Your task to perform on an android device: open app "VLC for Android" (install if not already installed) Image 0: 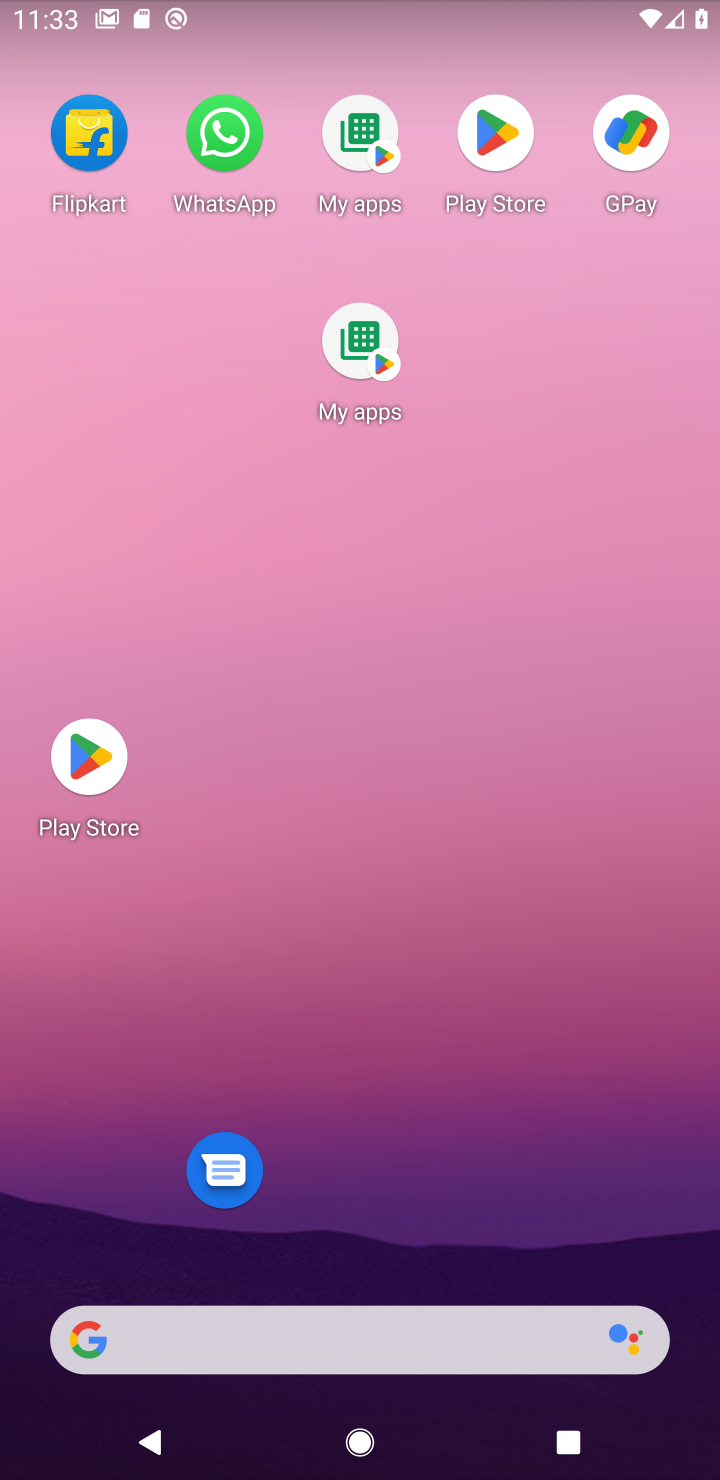
Step 0: drag from (507, 1191) to (426, 50)
Your task to perform on an android device: open app "VLC for Android" (install if not already installed) Image 1: 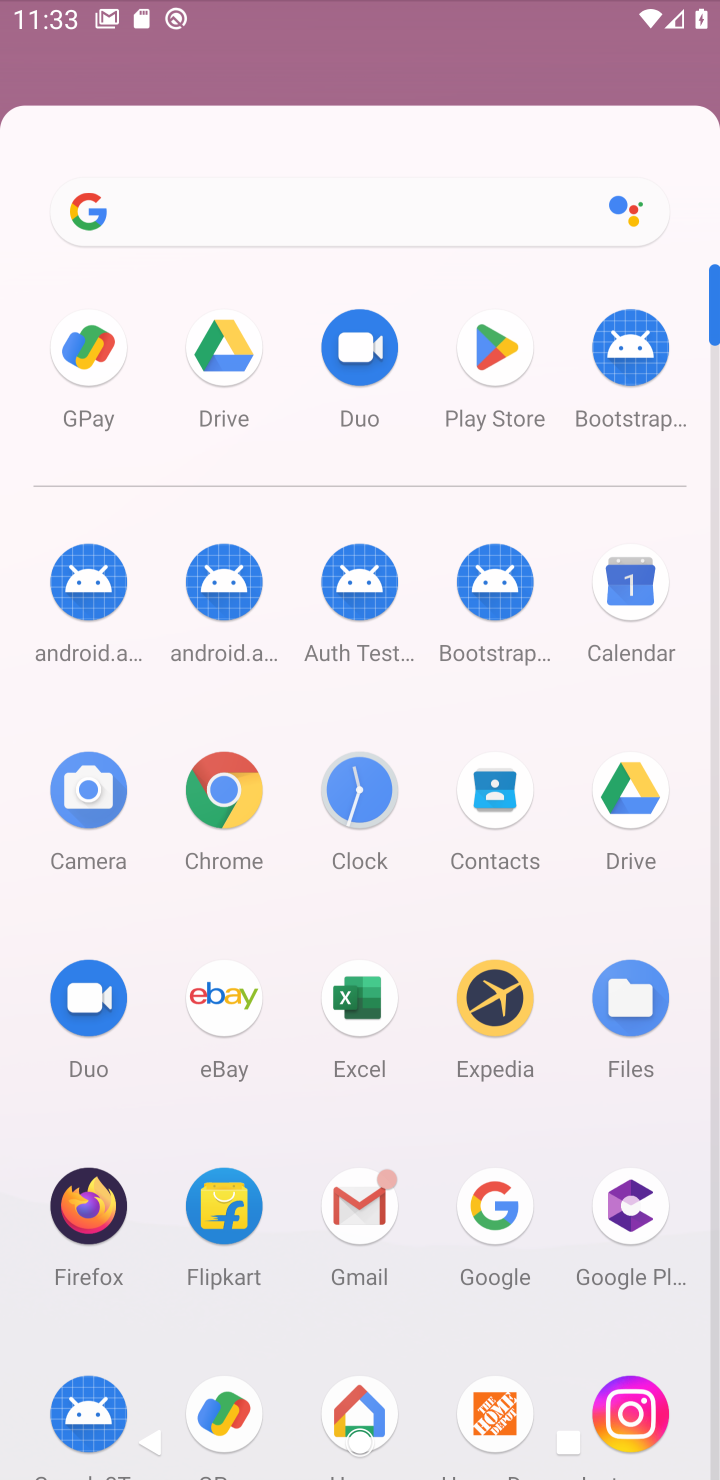
Step 1: drag from (534, 301) to (525, 0)
Your task to perform on an android device: open app "VLC for Android" (install if not already installed) Image 2: 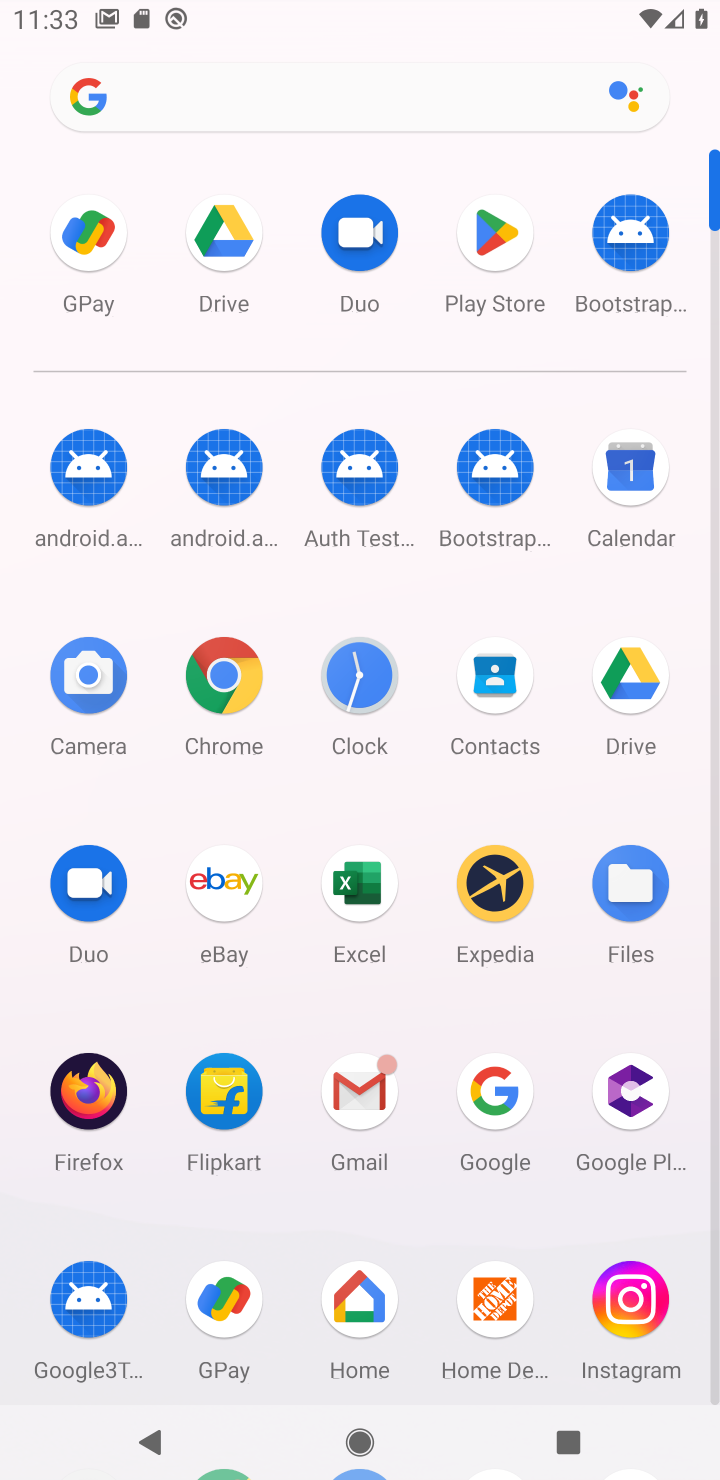
Step 2: click (499, 251)
Your task to perform on an android device: open app "VLC for Android" (install if not already installed) Image 3: 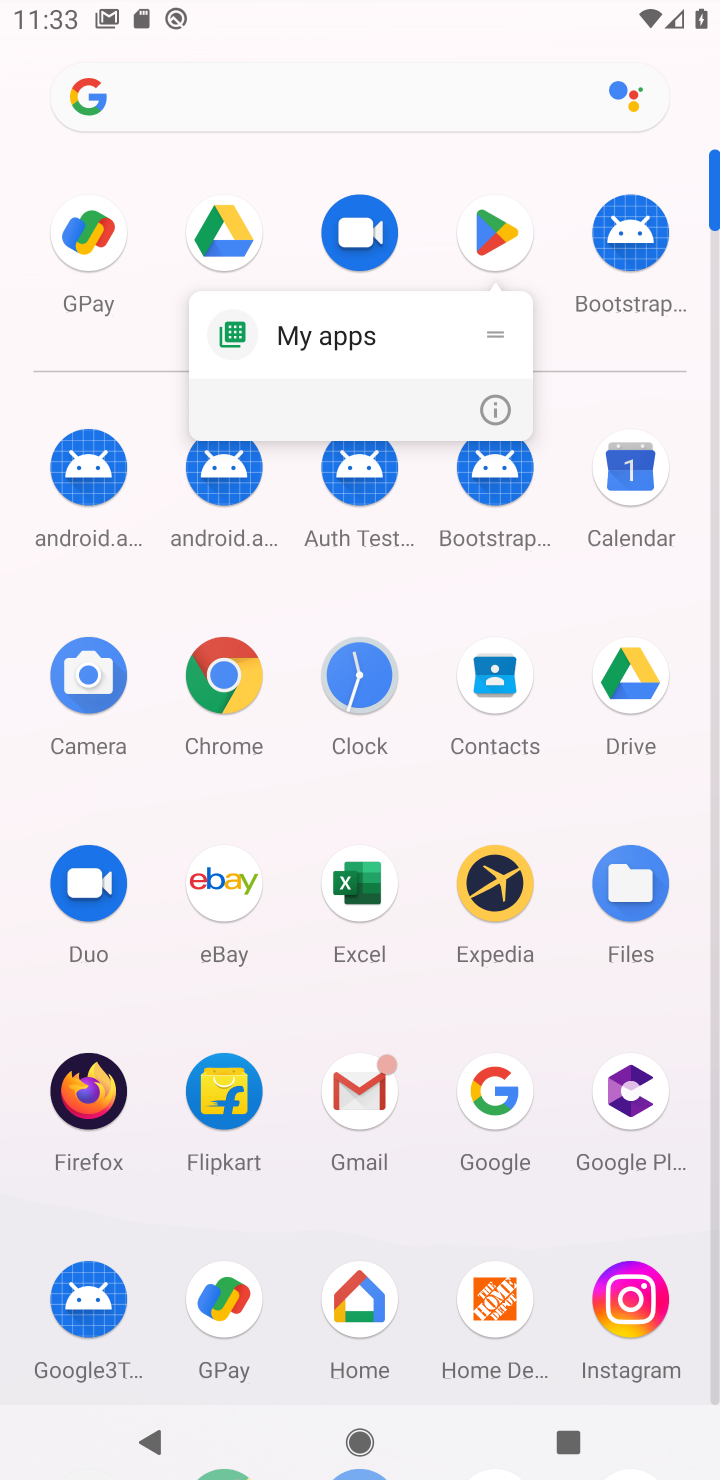
Step 3: click (399, 312)
Your task to perform on an android device: open app "VLC for Android" (install if not already installed) Image 4: 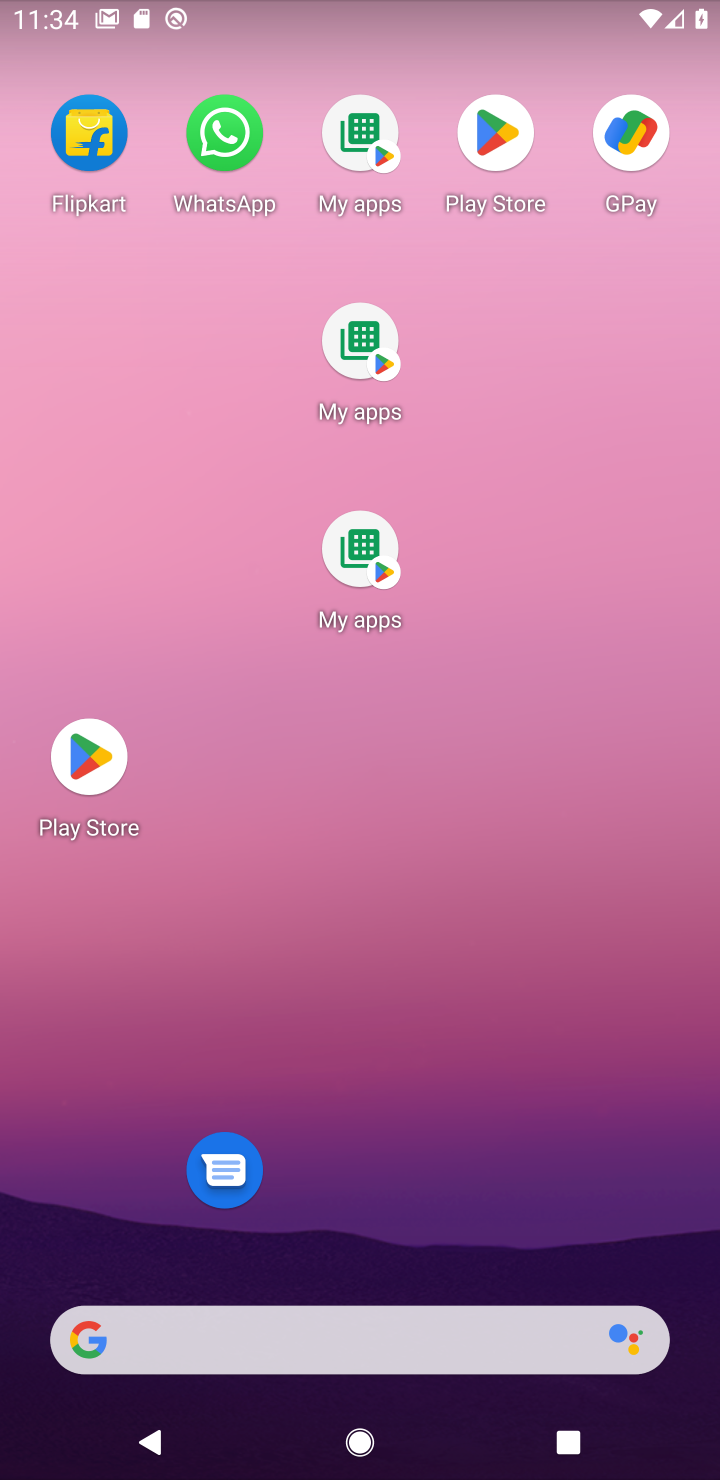
Step 4: click (512, 142)
Your task to perform on an android device: open app "VLC for Android" (install if not already installed) Image 5: 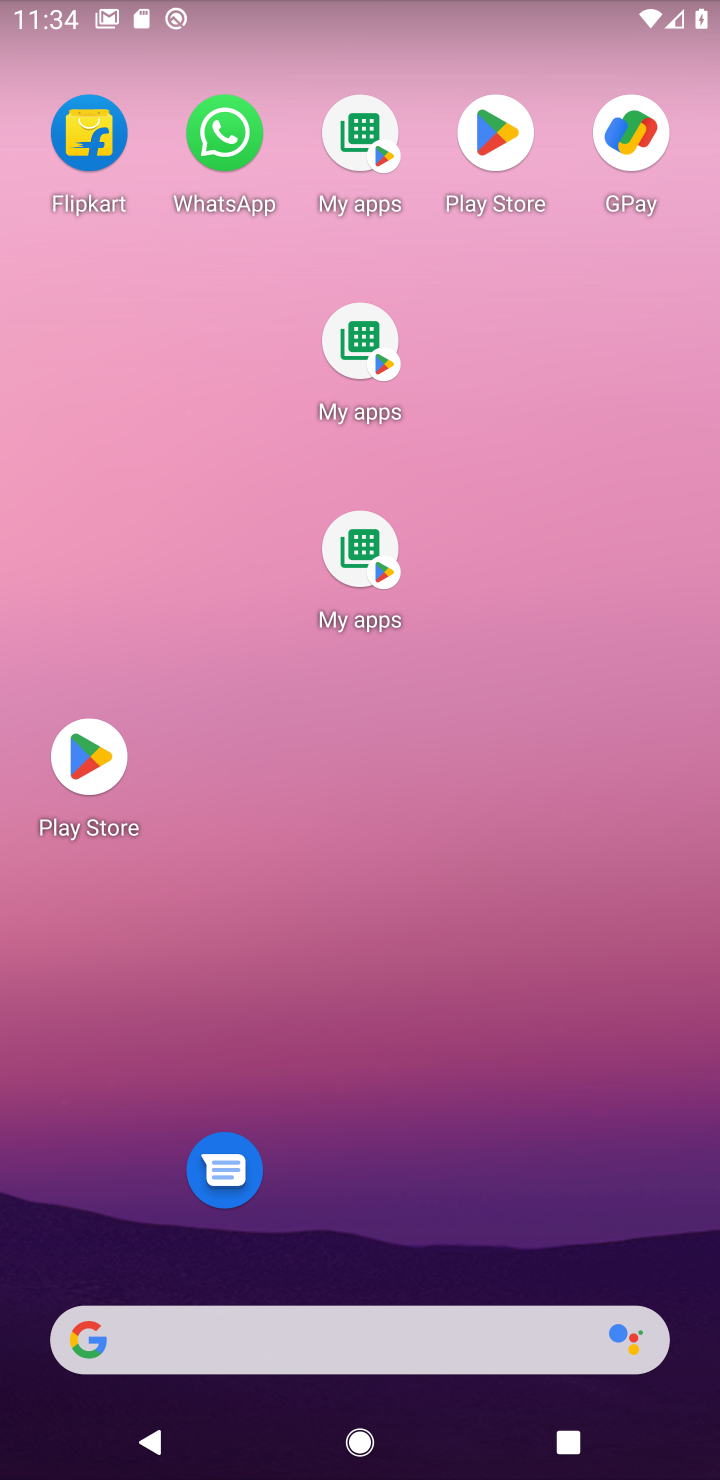
Step 5: click (497, 134)
Your task to perform on an android device: open app "VLC for Android" (install if not already installed) Image 6: 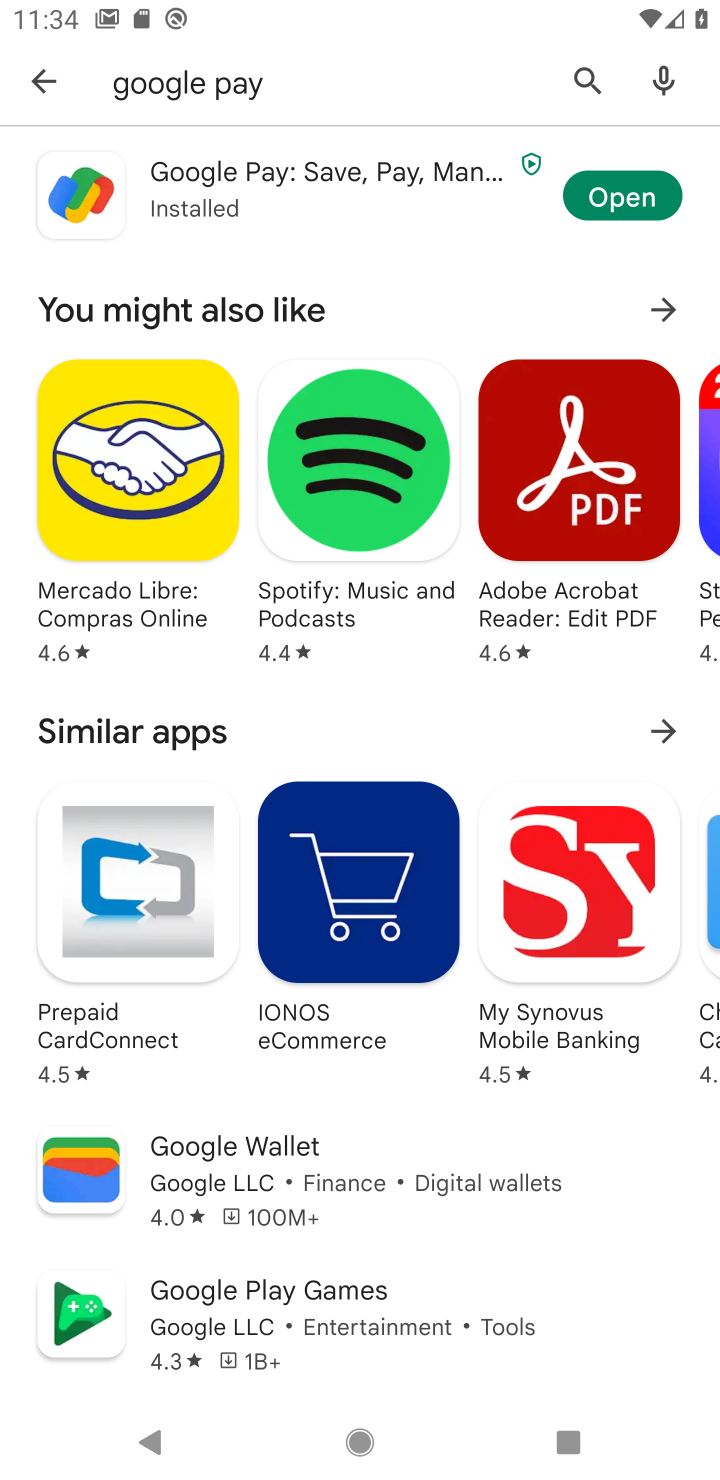
Step 6: click (582, 73)
Your task to perform on an android device: open app "VLC for Android" (install if not already installed) Image 7: 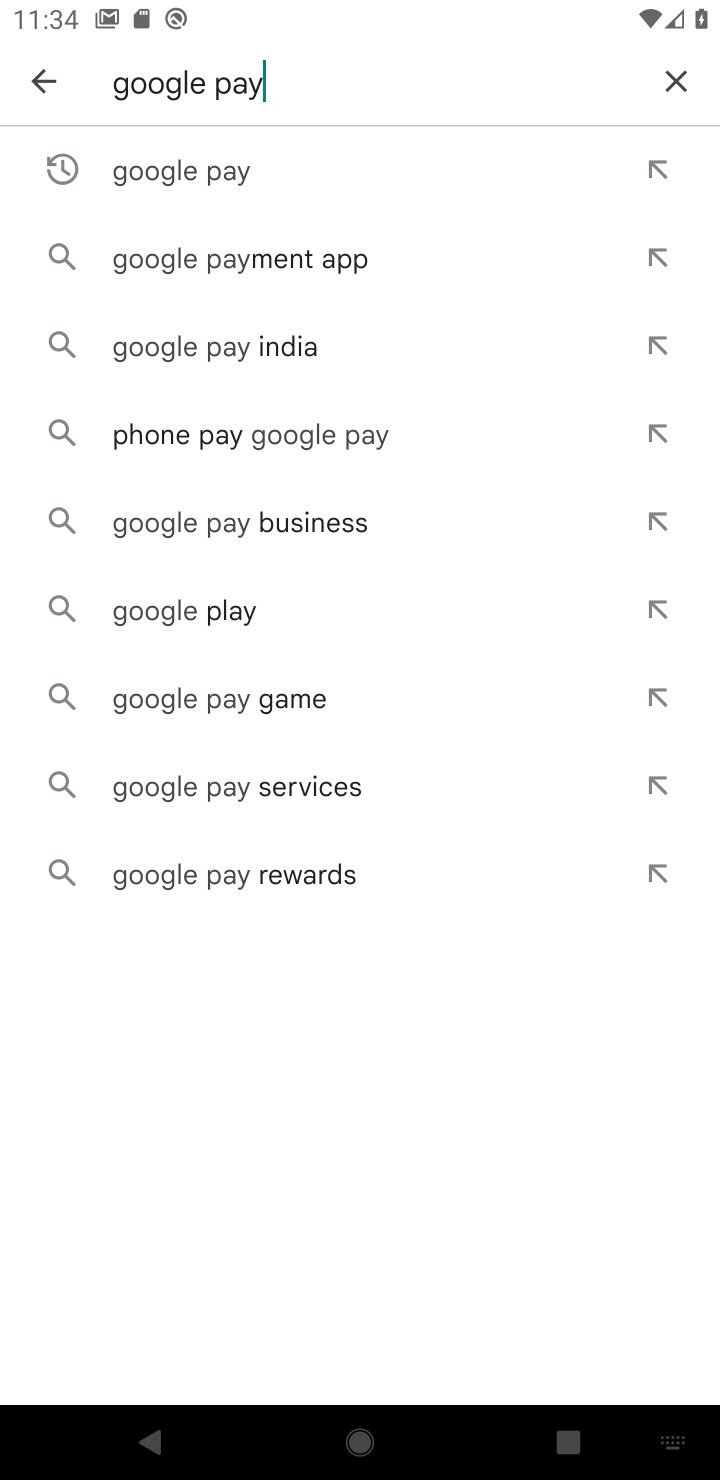
Step 7: type "vlc"
Your task to perform on an android device: open app "VLC for Android" (install if not already installed) Image 8: 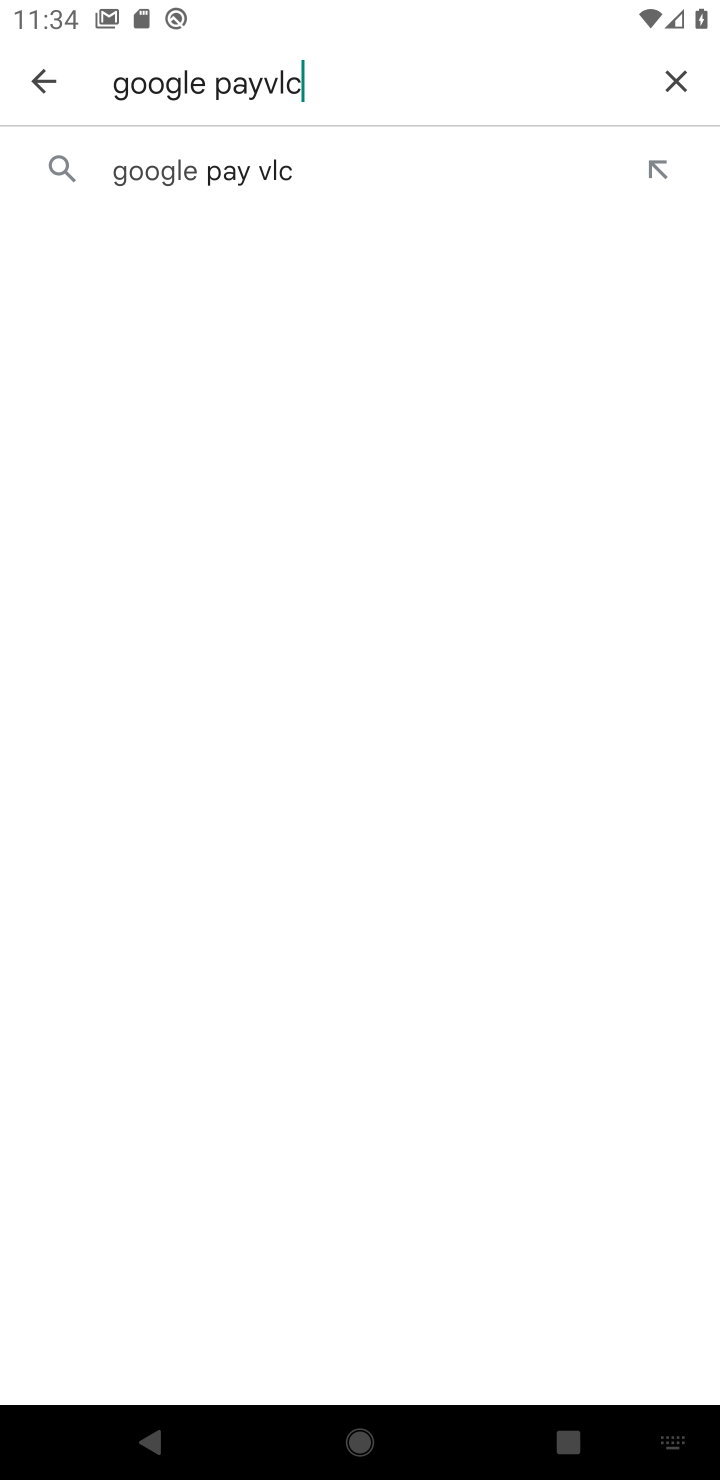
Step 8: click (660, 60)
Your task to perform on an android device: open app "VLC for Android" (install if not already installed) Image 9: 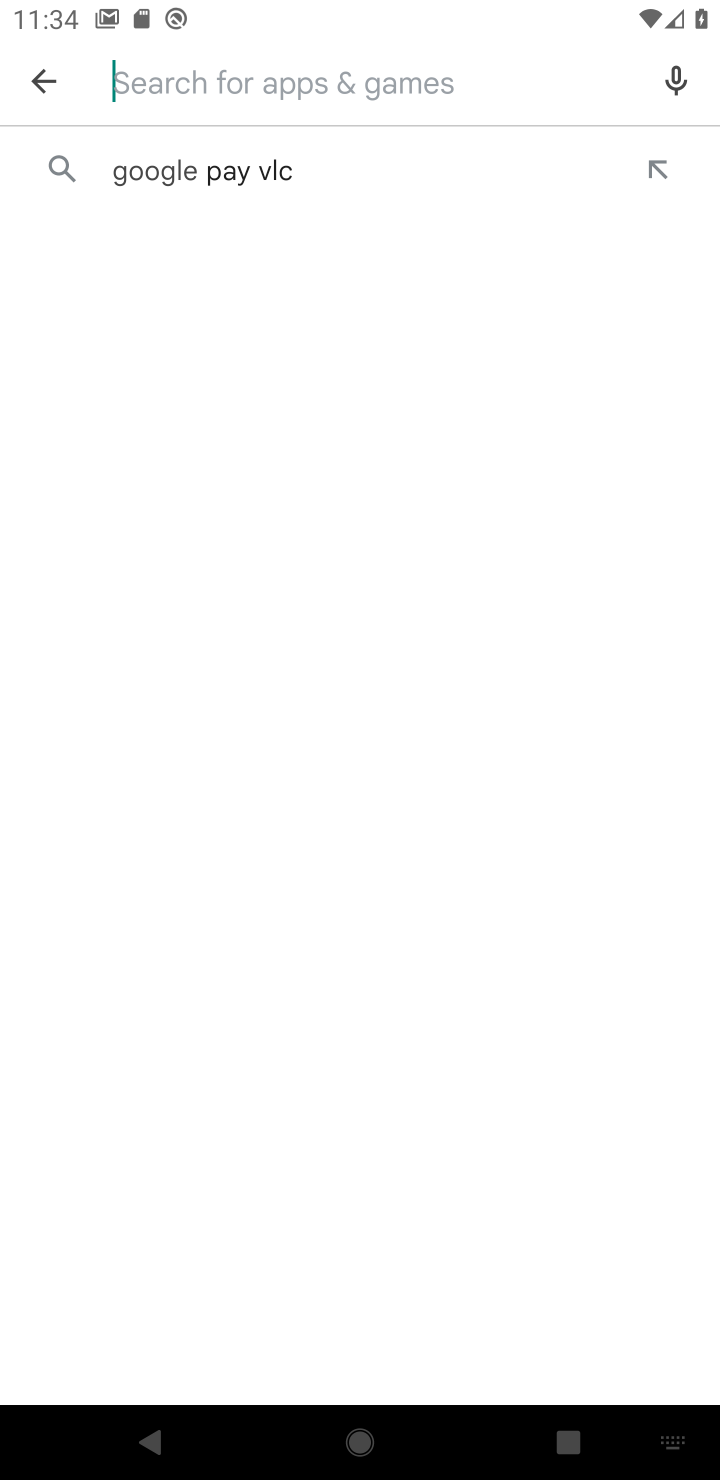
Step 9: click (660, 60)
Your task to perform on an android device: open app "VLC for Android" (install if not already installed) Image 10: 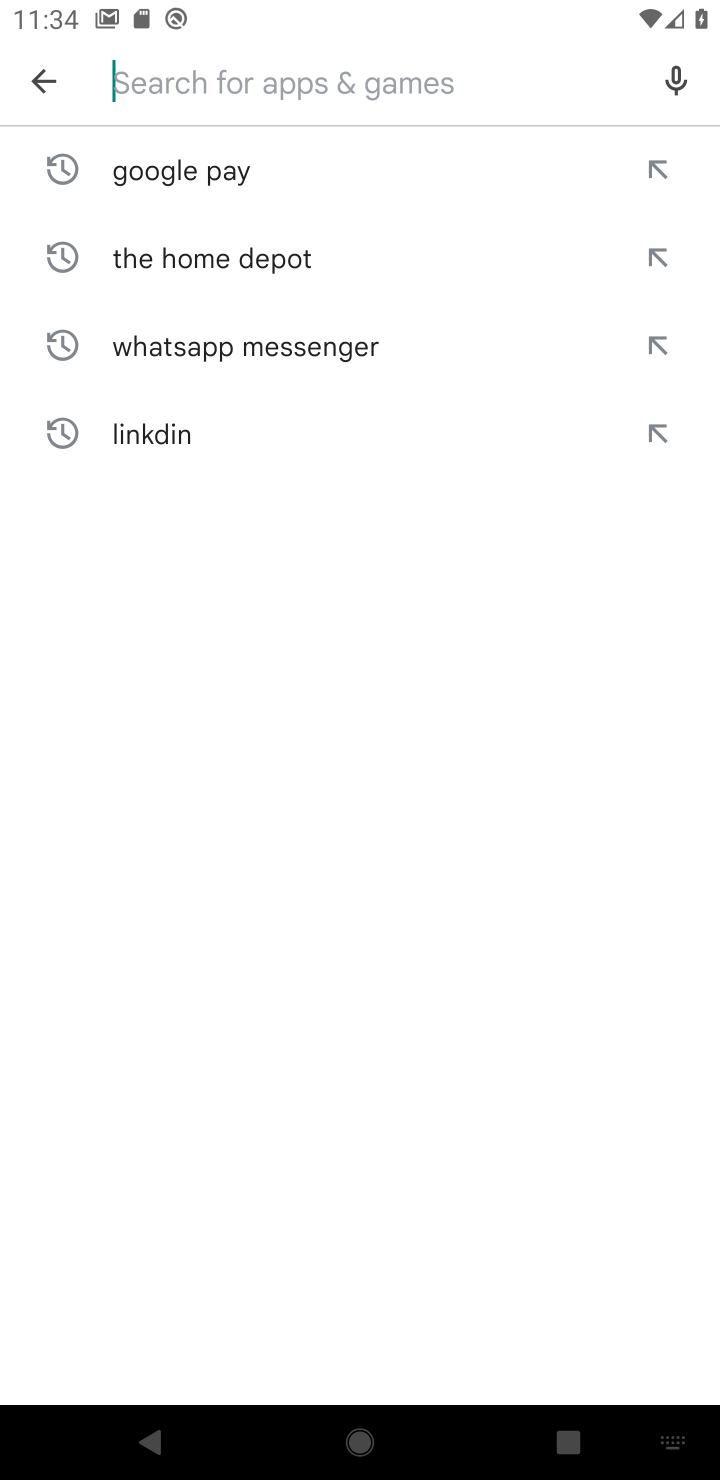
Step 10: click (663, 55)
Your task to perform on an android device: open app "VLC for Android" (install if not already installed) Image 11: 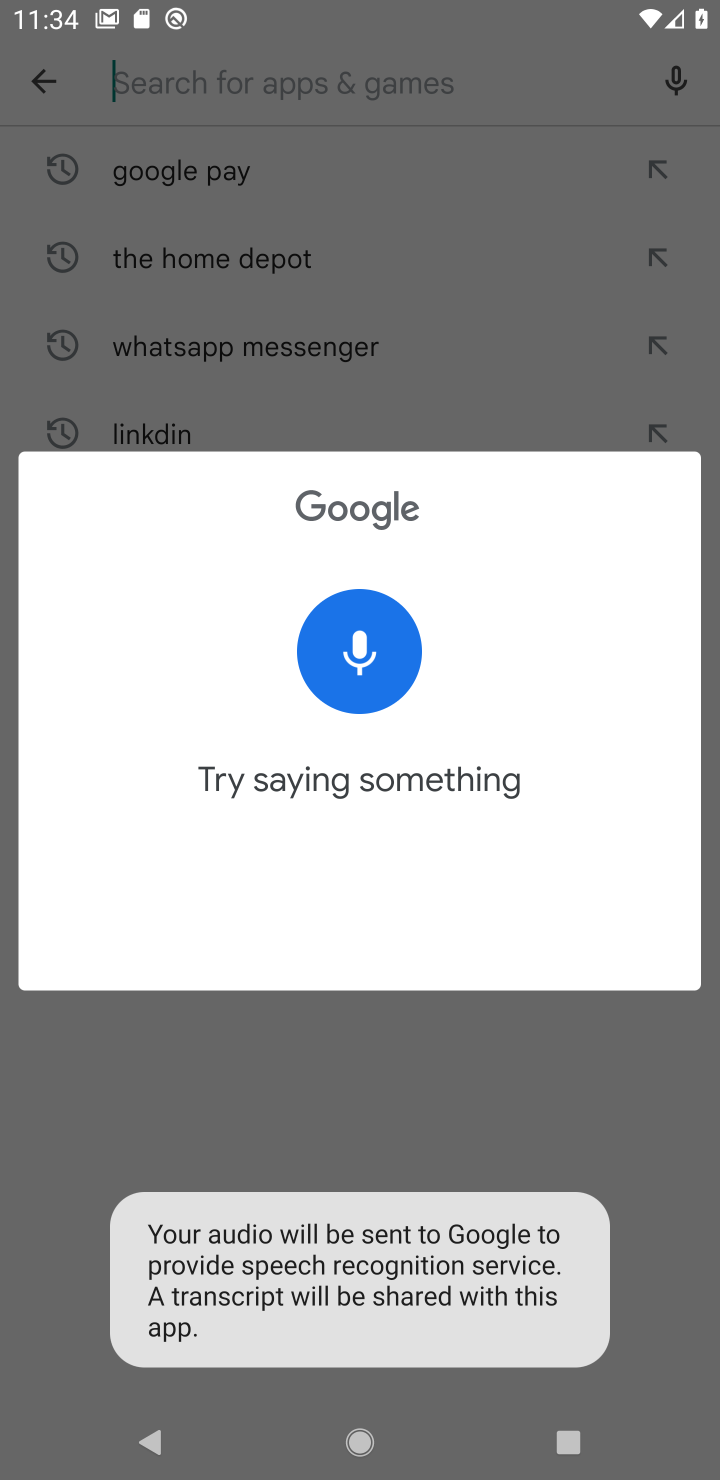
Step 11: click (520, 331)
Your task to perform on an android device: open app "VLC for Android" (install if not already installed) Image 12: 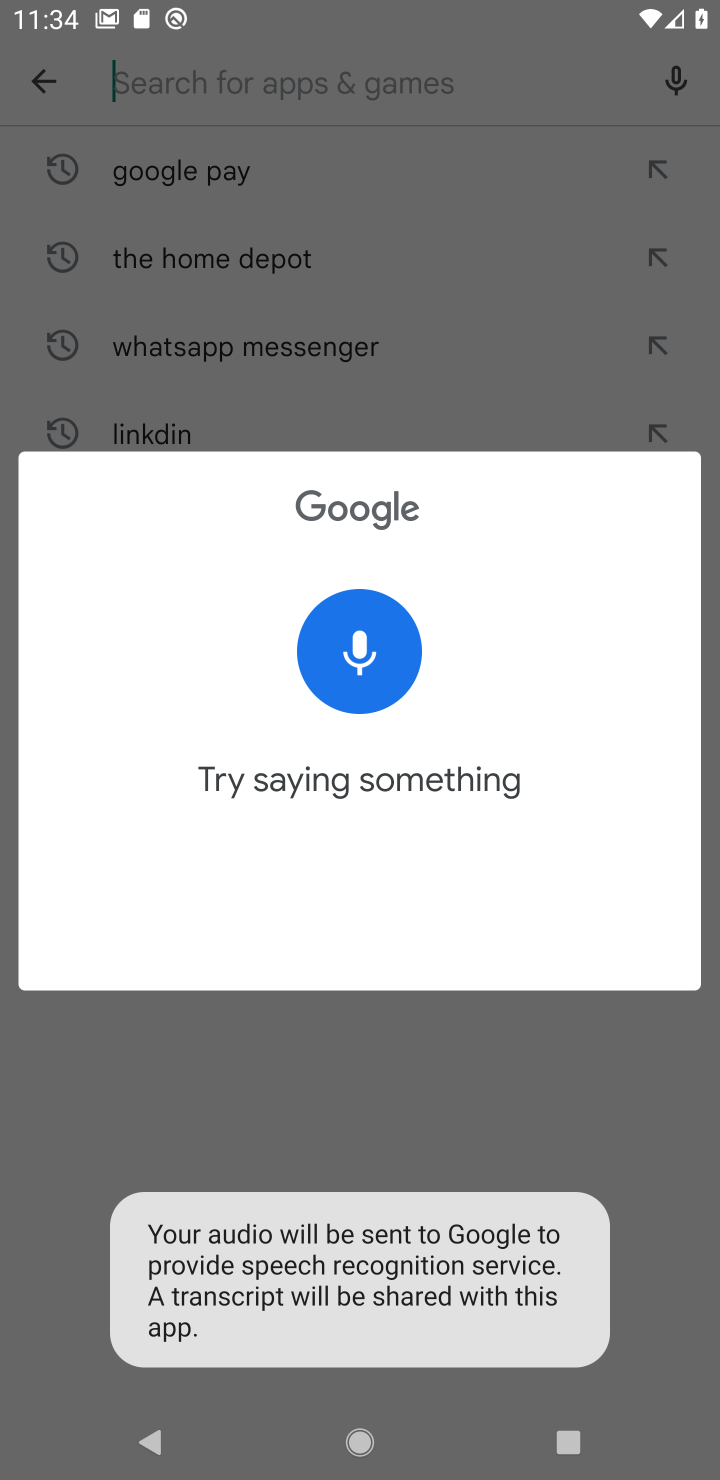
Step 12: click (532, 339)
Your task to perform on an android device: open app "VLC for Android" (install if not already installed) Image 13: 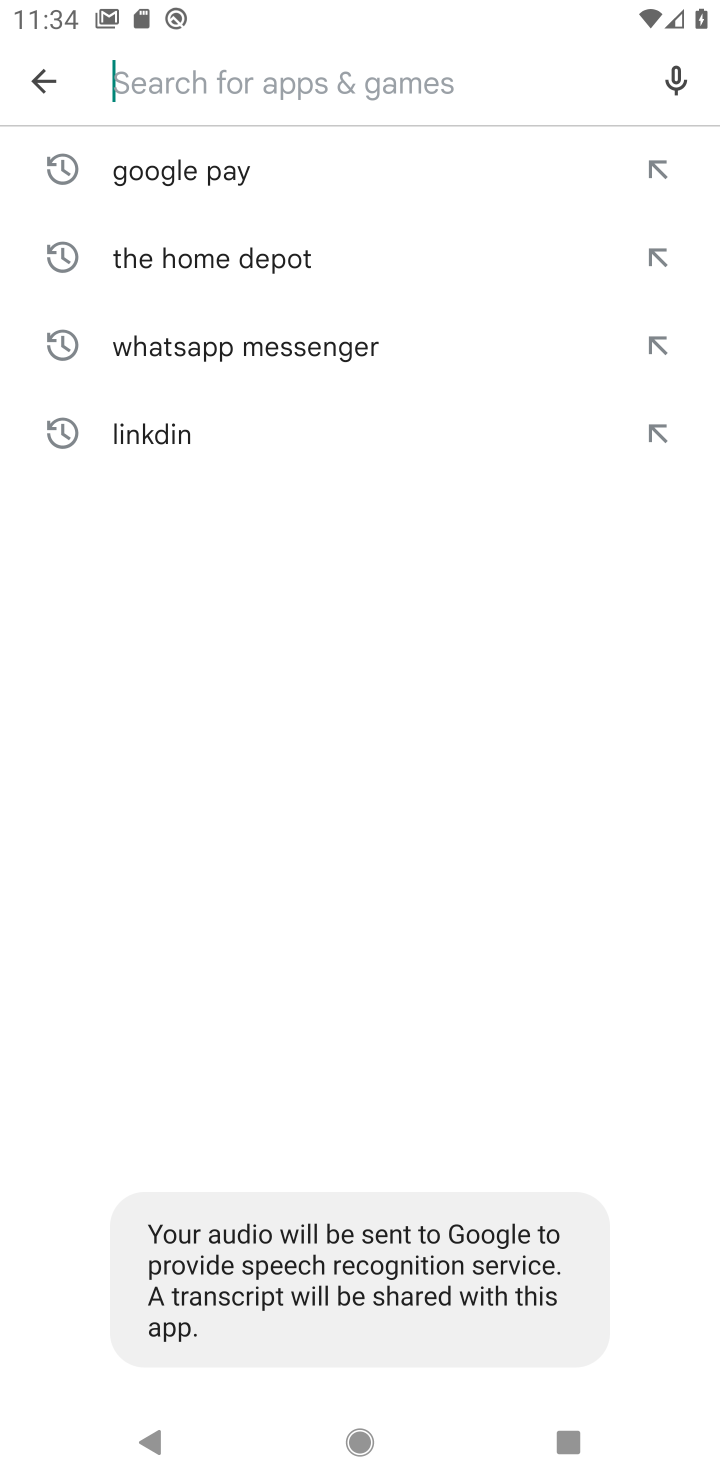
Step 13: click (548, 343)
Your task to perform on an android device: open app "VLC for Android" (install if not already installed) Image 14: 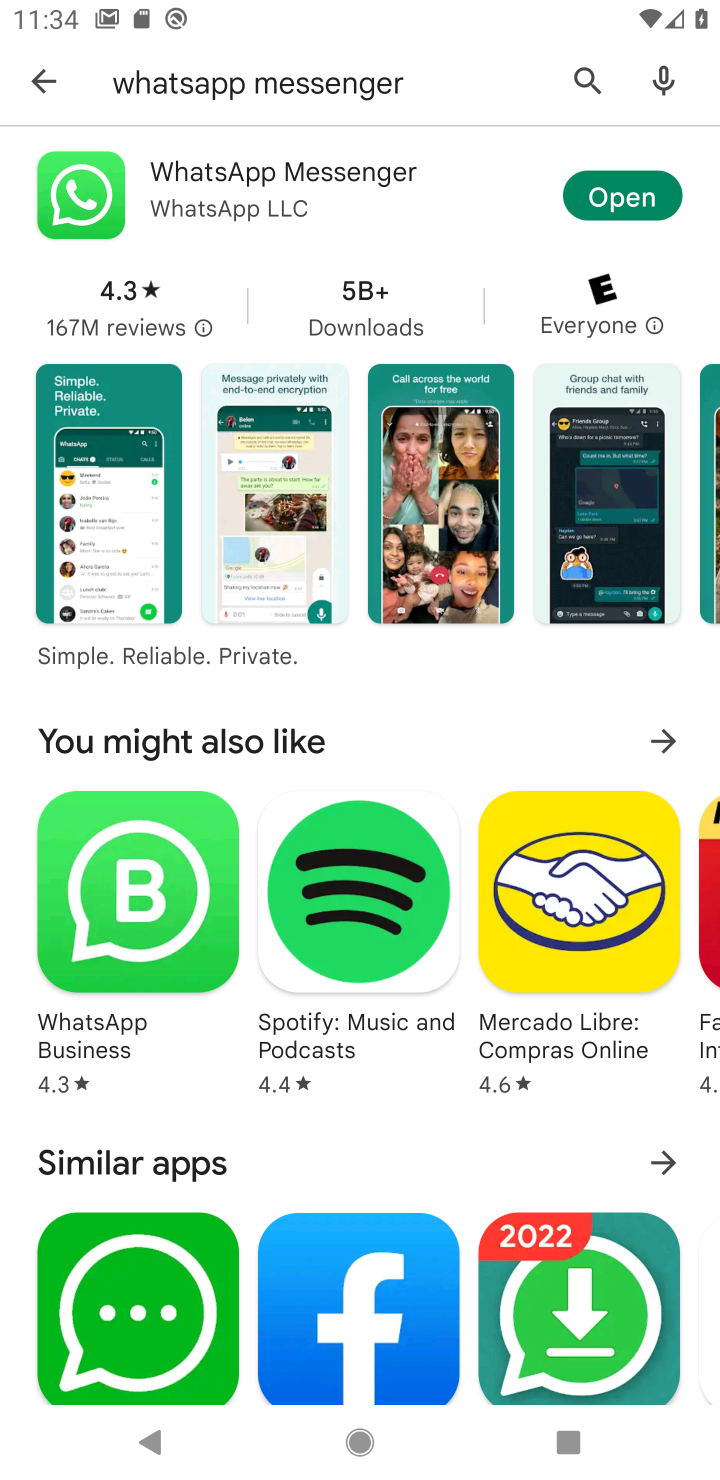
Step 14: click (46, 75)
Your task to perform on an android device: open app "VLC for Android" (install if not already installed) Image 15: 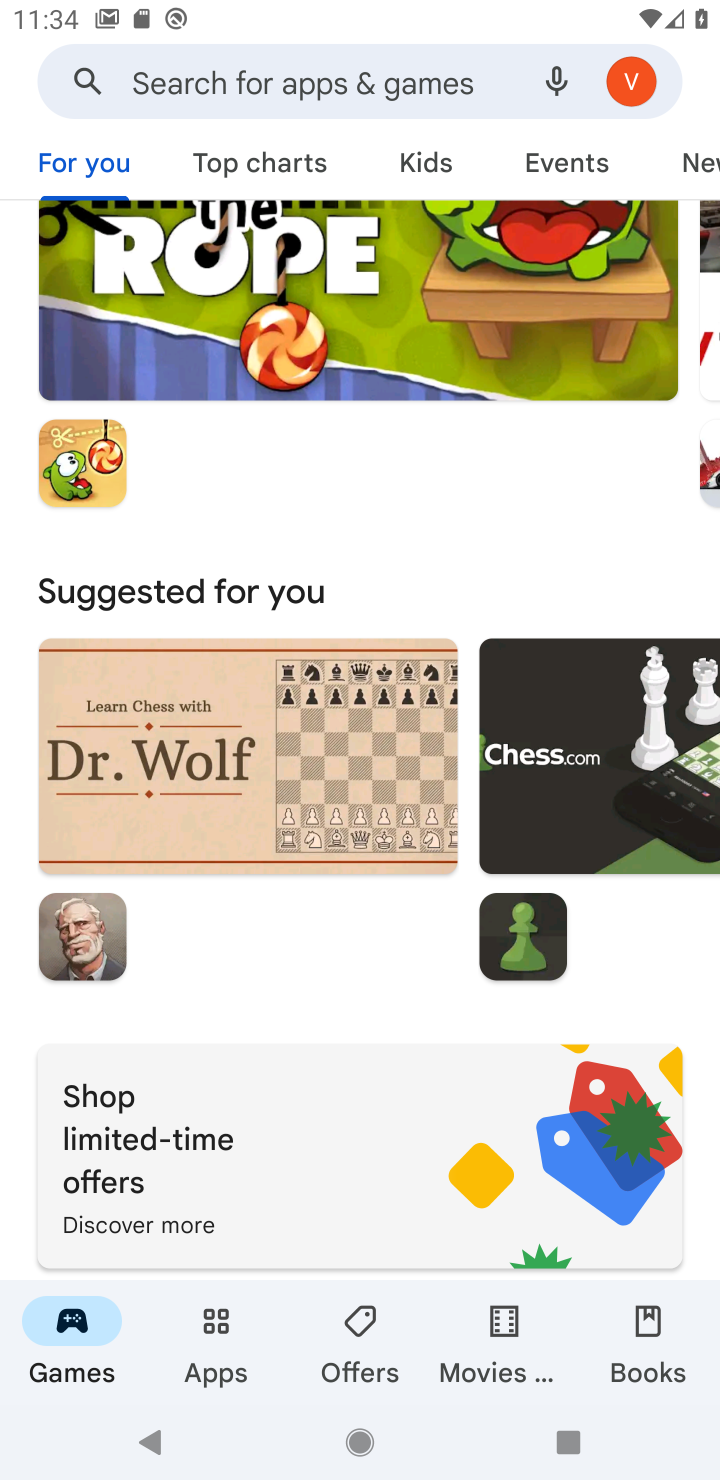
Step 15: click (243, 62)
Your task to perform on an android device: open app "VLC for Android" (install if not already installed) Image 16: 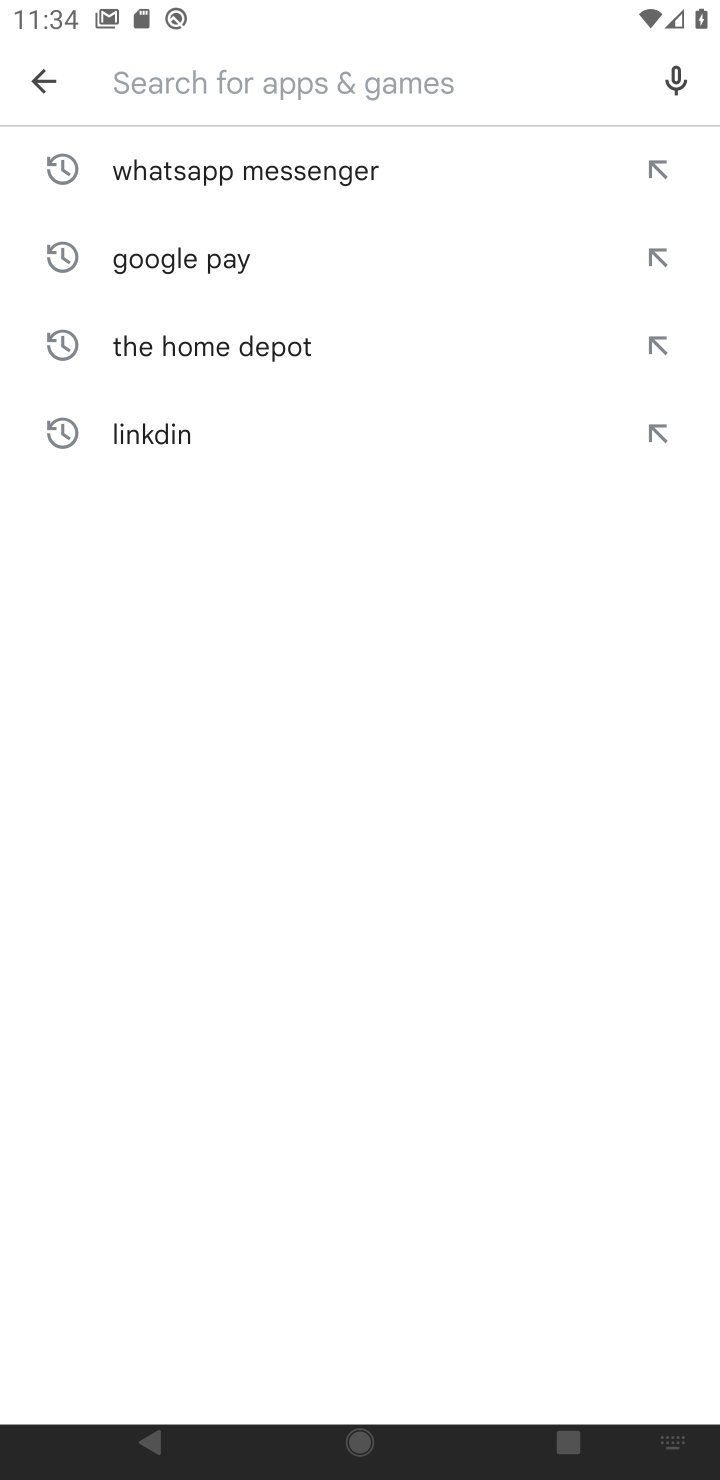
Step 16: click (199, 92)
Your task to perform on an android device: open app "VLC for Android" (install if not already installed) Image 17: 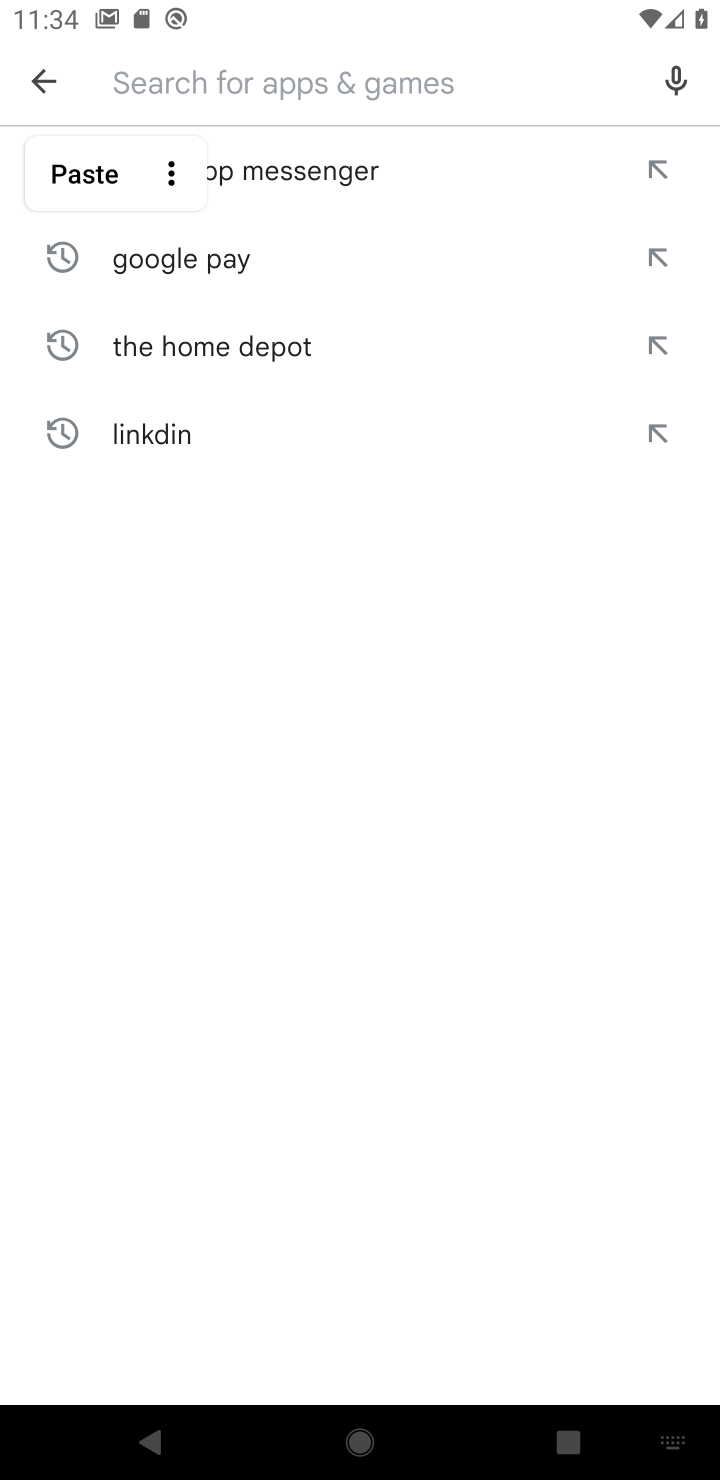
Step 17: type "vlc"
Your task to perform on an android device: open app "VLC for Android" (install if not already installed) Image 18: 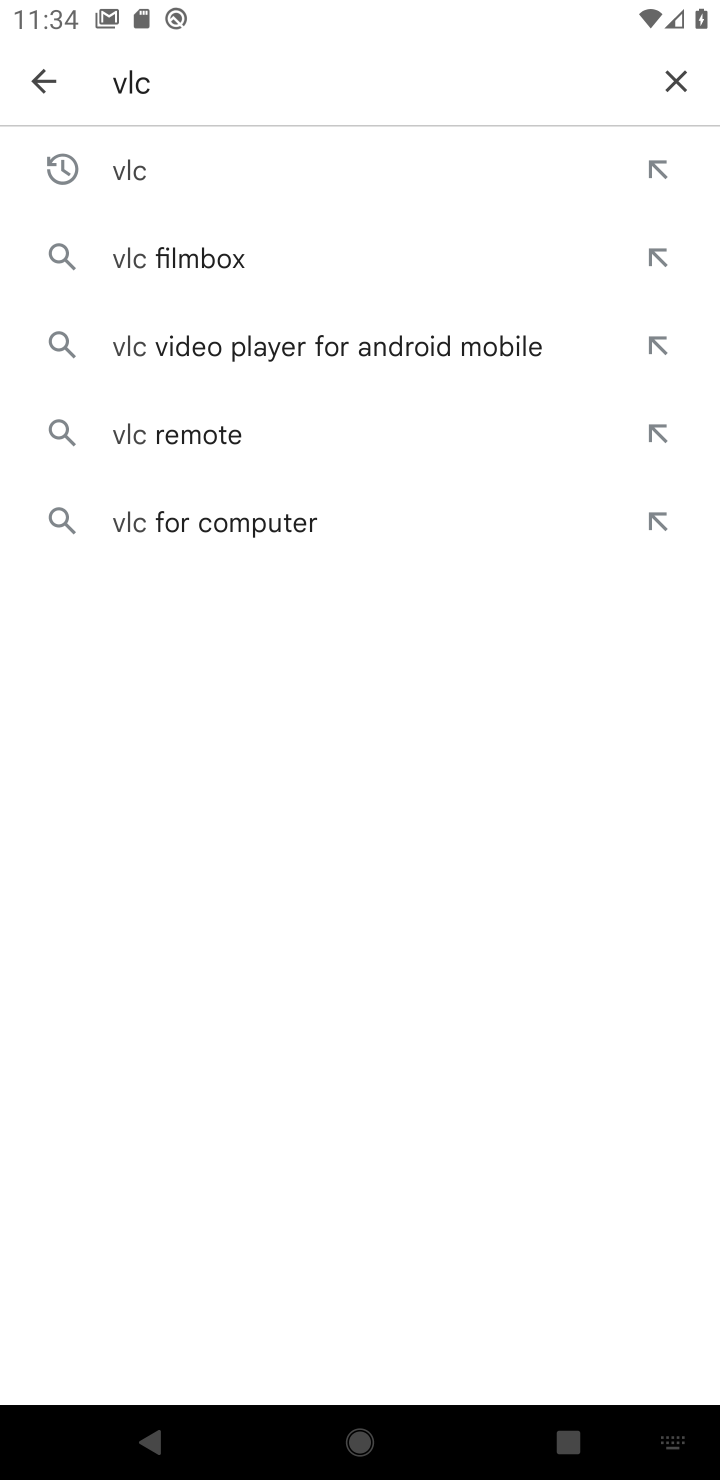
Step 18: click (131, 161)
Your task to perform on an android device: open app "VLC for Android" (install if not already installed) Image 19: 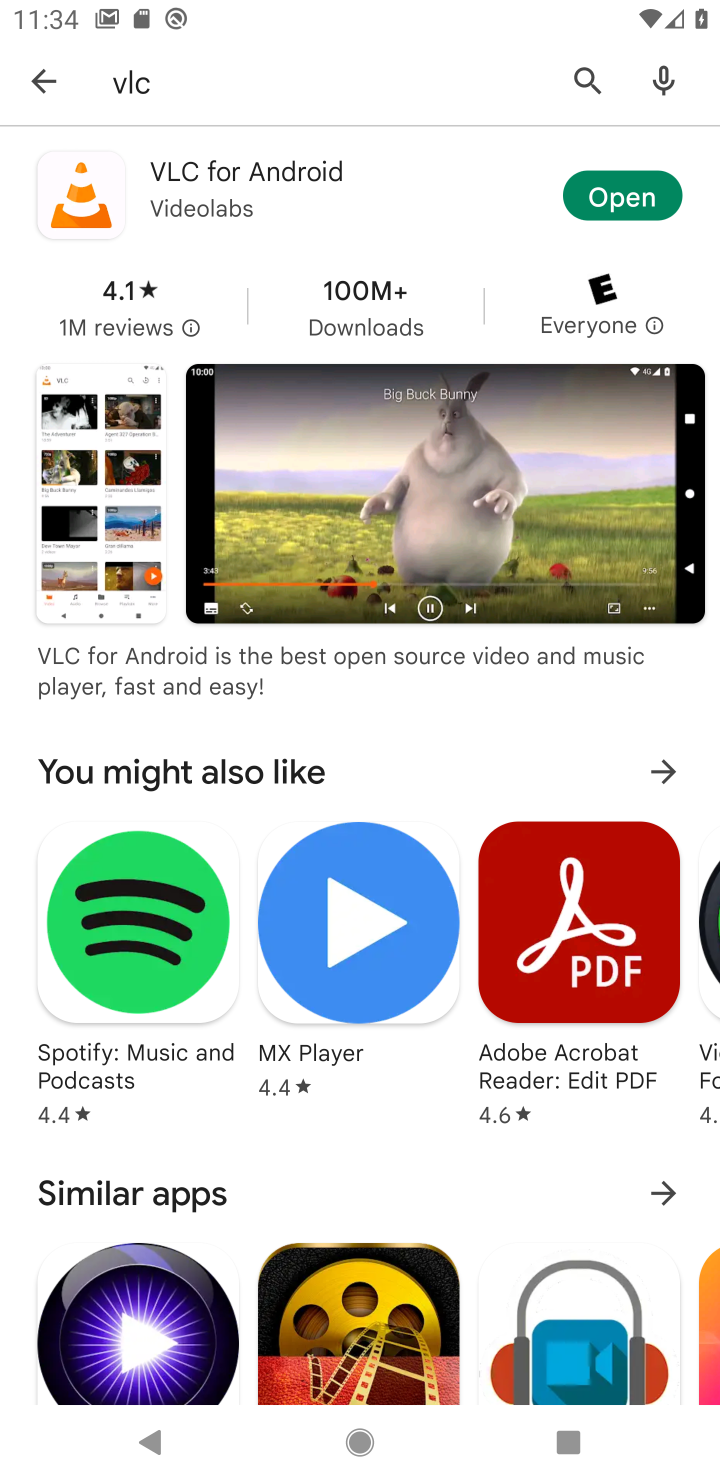
Step 19: click (643, 196)
Your task to perform on an android device: open app "VLC for Android" (install if not already installed) Image 20: 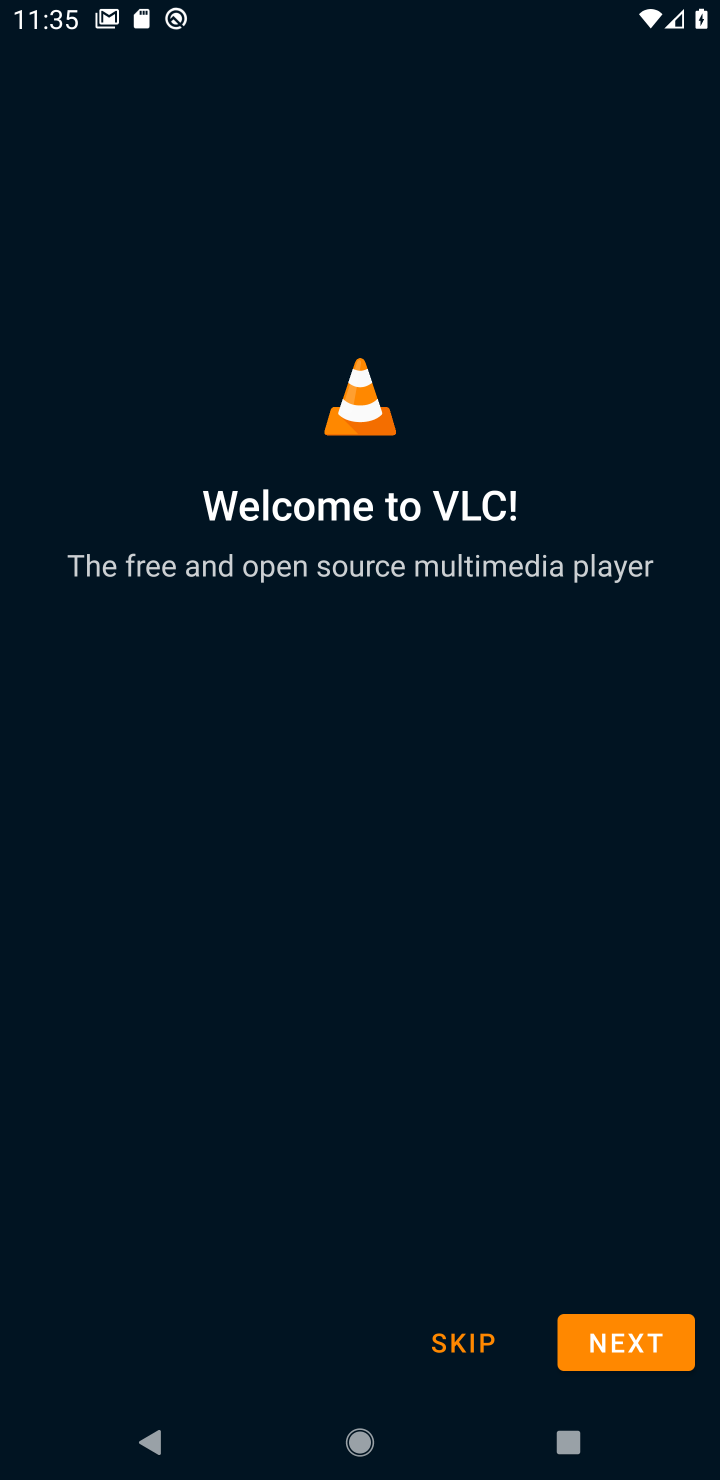
Step 20: task complete